Your task to perform on an android device: Open Chrome and go to settings Image 0: 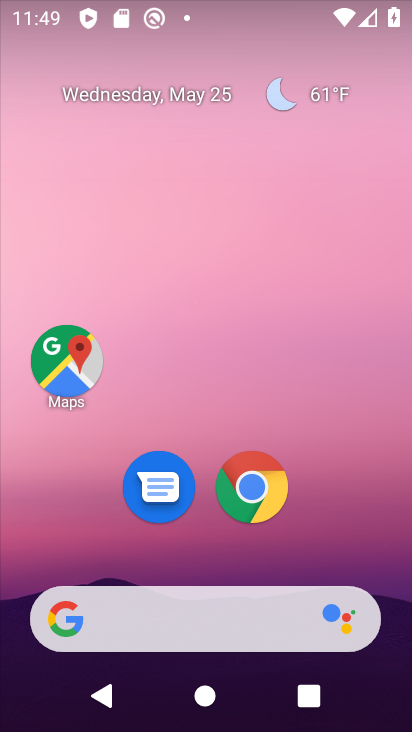
Step 0: drag from (236, 636) to (224, 290)
Your task to perform on an android device: Open Chrome and go to settings Image 1: 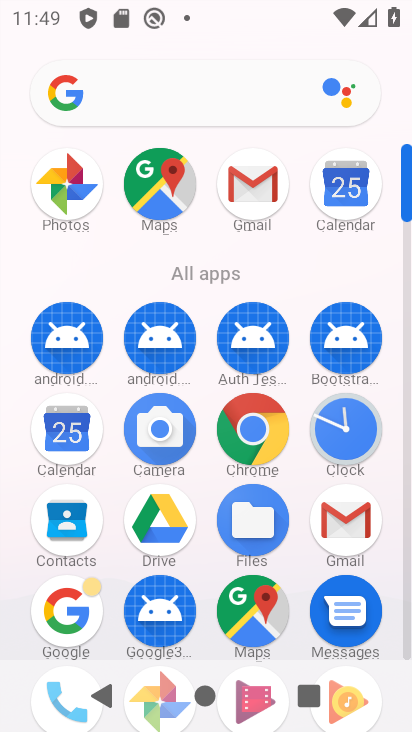
Step 1: click (249, 435)
Your task to perform on an android device: Open Chrome and go to settings Image 2: 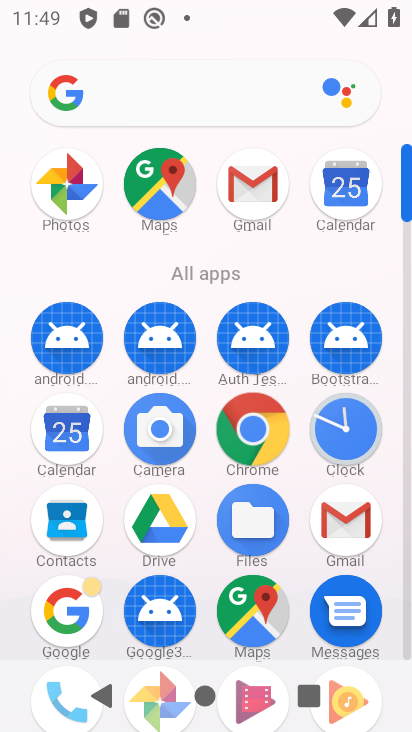
Step 2: click (249, 435)
Your task to perform on an android device: Open Chrome and go to settings Image 3: 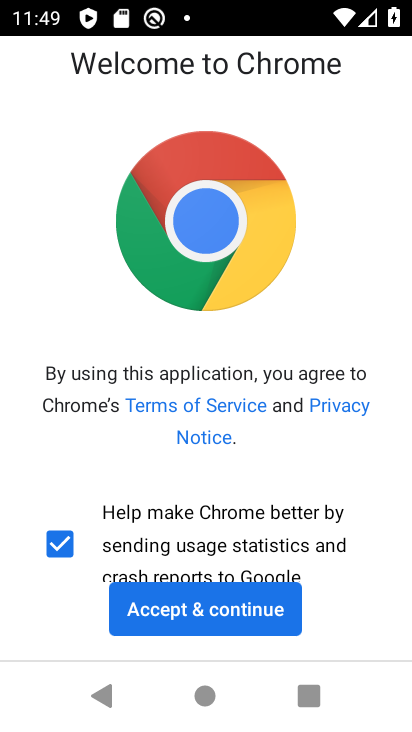
Step 3: click (218, 600)
Your task to perform on an android device: Open Chrome and go to settings Image 4: 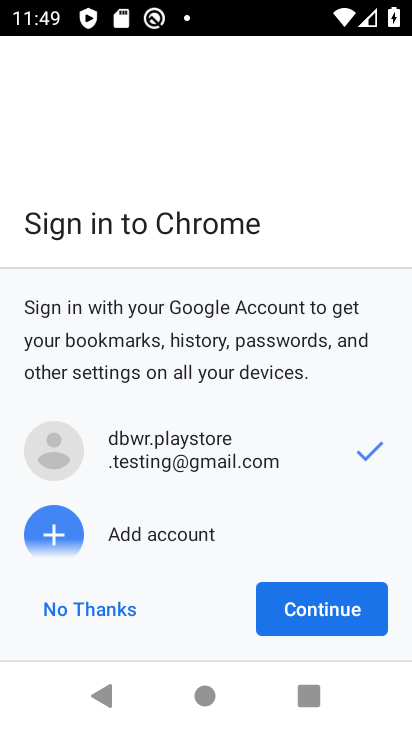
Step 4: click (329, 612)
Your task to perform on an android device: Open Chrome and go to settings Image 5: 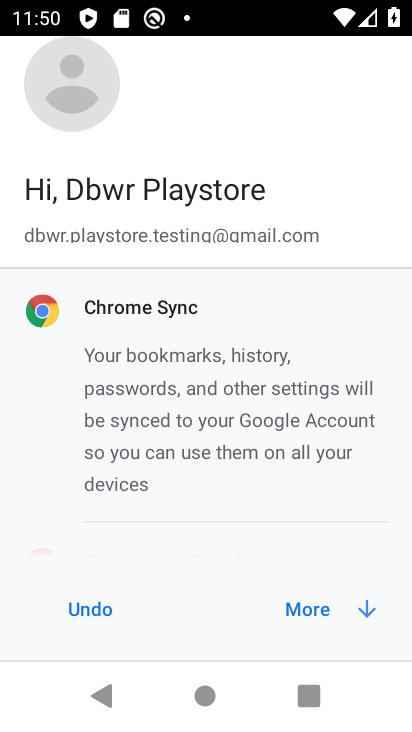
Step 5: click (323, 615)
Your task to perform on an android device: Open Chrome and go to settings Image 6: 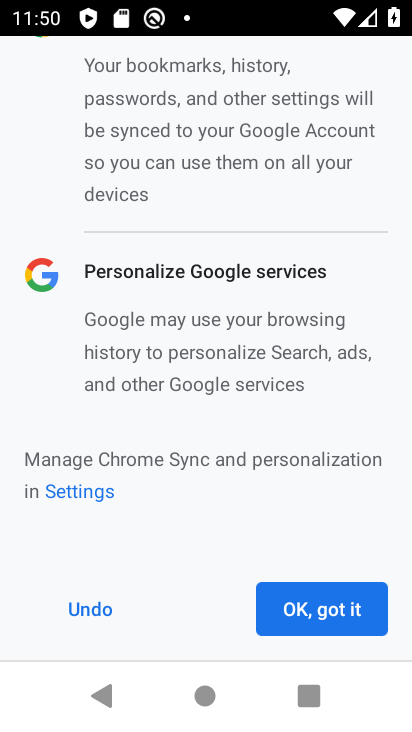
Step 6: click (324, 612)
Your task to perform on an android device: Open Chrome and go to settings Image 7: 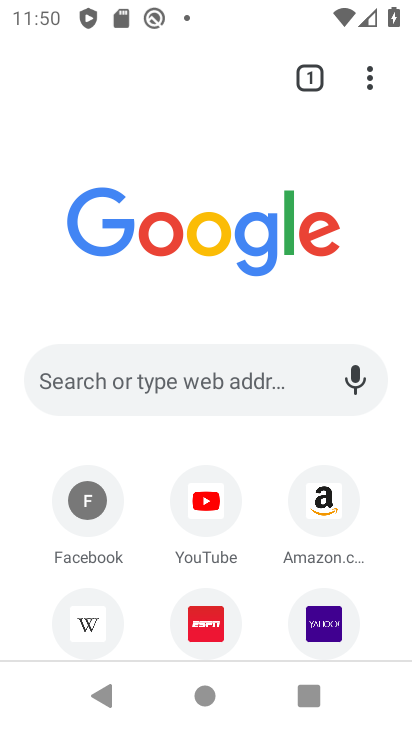
Step 7: click (363, 78)
Your task to perform on an android device: Open Chrome and go to settings Image 8: 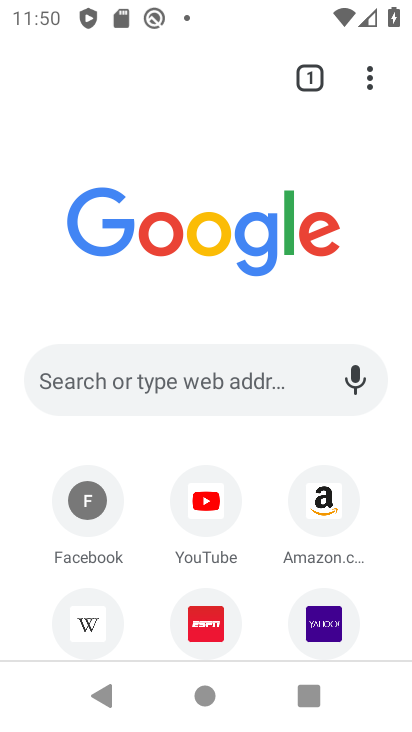
Step 8: click (368, 84)
Your task to perform on an android device: Open Chrome and go to settings Image 9: 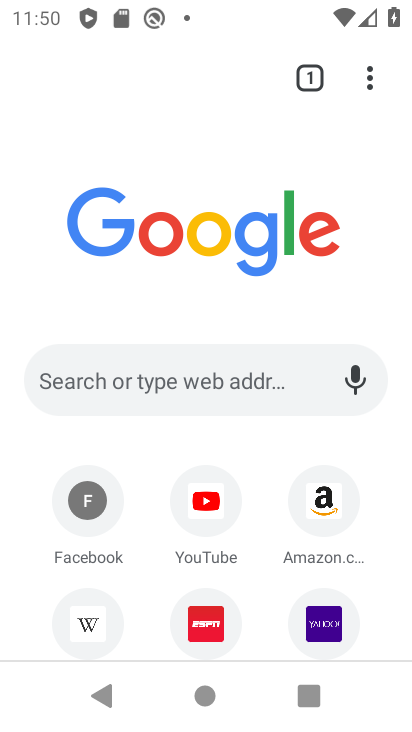
Step 9: click (368, 84)
Your task to perform on an android device: Open Chrome and go to settings Image 10: 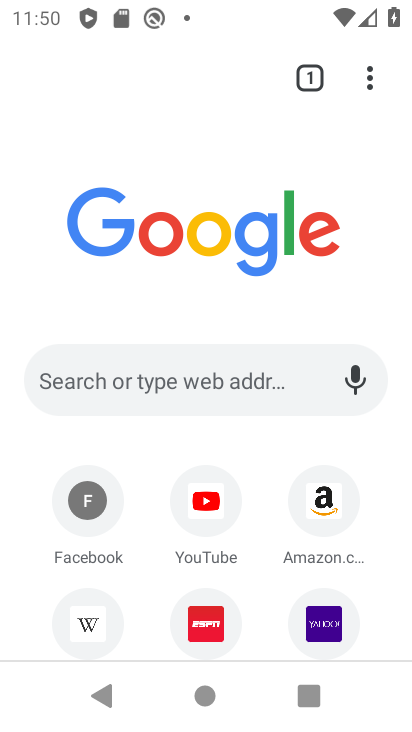
Step 10: drag from (366, 79) to (83, 539)
Your task to perform on an android device: Open Chrome and go to settings Image 11: 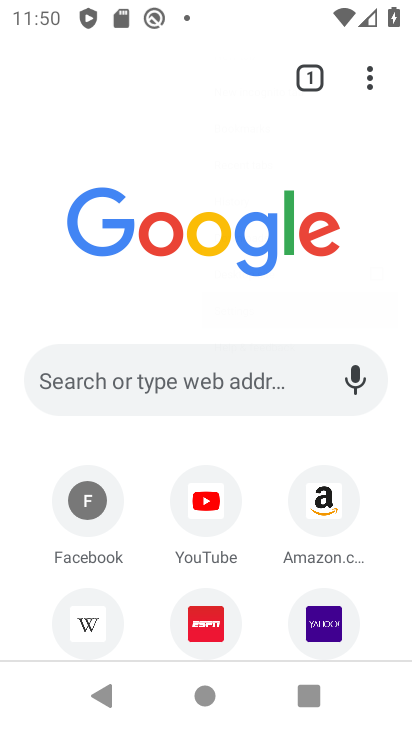
Step 11: click (83, 541)
Your task to perform on an android device: Open Chrome and go to settings Image 12: 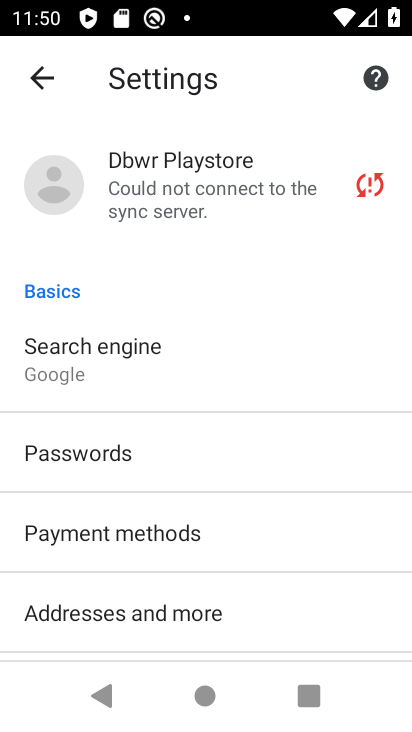
Step 12: task complete